Your task to perform on an android device: turn on wifi Image 0: 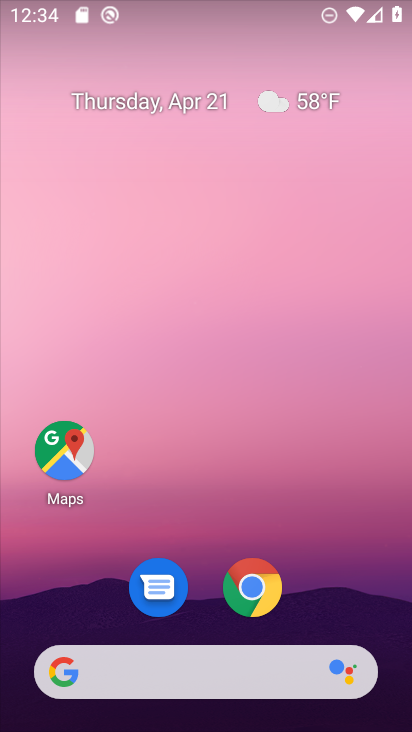
Step 0: click (161, 336)
Your task to perform on an android device: turn on wifi Image 1: 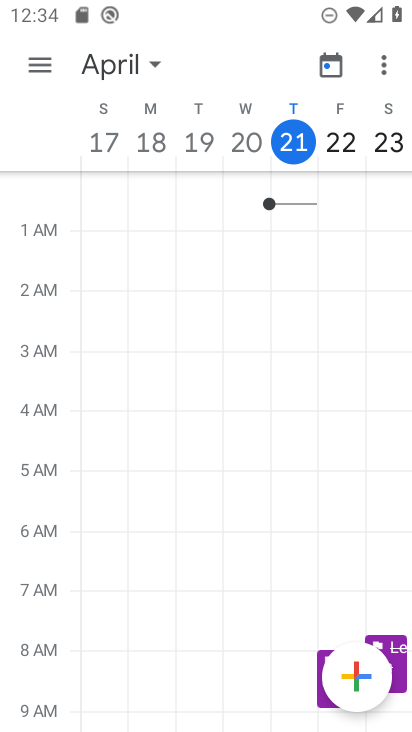
Step 1: drag from (183, 510) to (208, 60)
Your task to perform on an android device: turn on wifi Image 2: 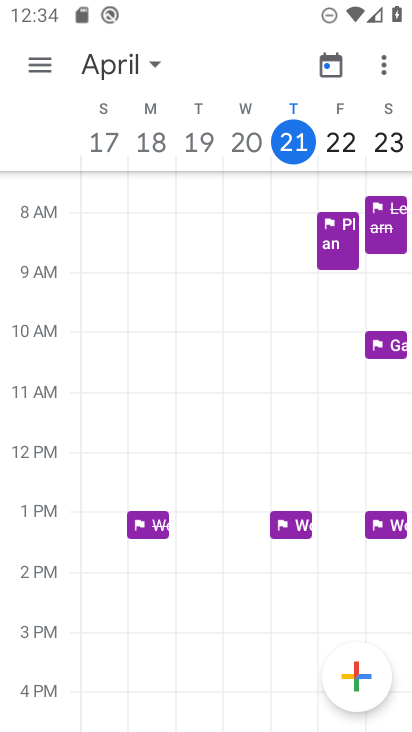
Step 2: press home button
Your task to perform on an android device: turn on wifi Image 3: 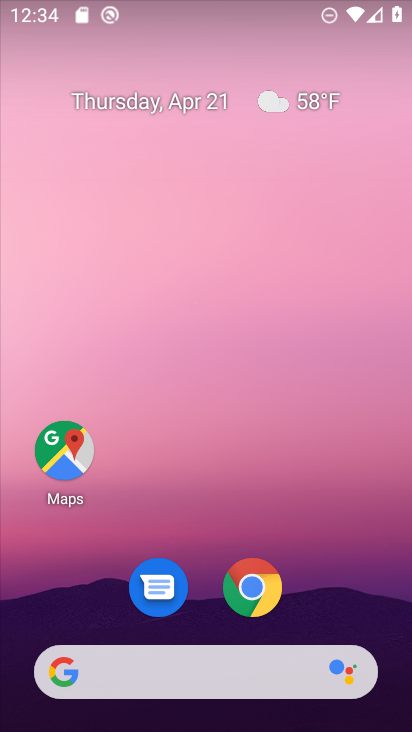
Step 3: drag from (201, 565) to (277, 56)
Your task to perform on an android device: turn on wifi Image 4: 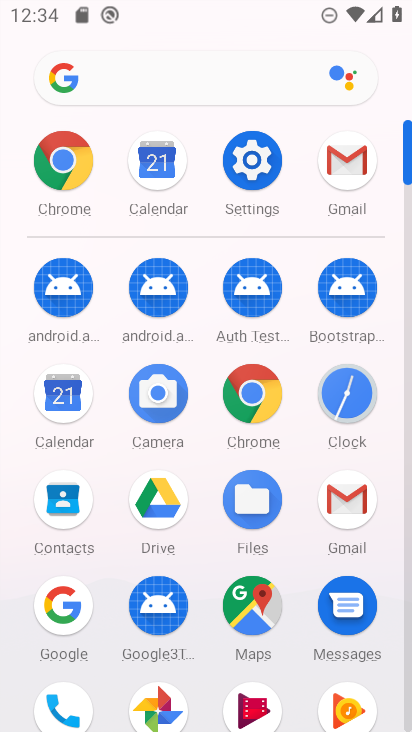
Step 4: click (250, 174)
Your task to perform on an android device: turn on wifi Image 5: 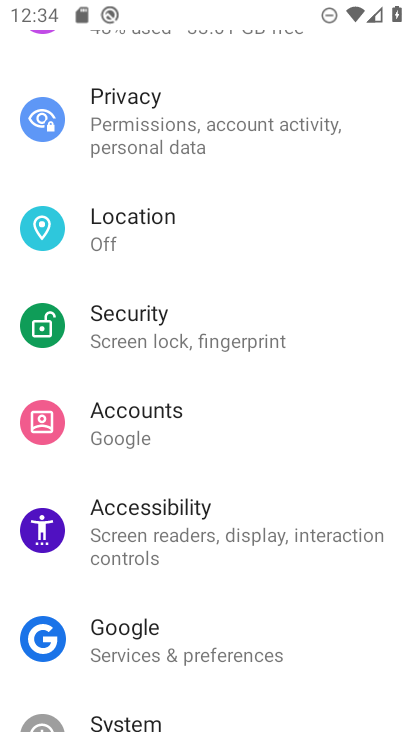
Step 5: drag from (241, 185) to (178, 731)
Your task to perform on an android device: turn on wifi Image 6: 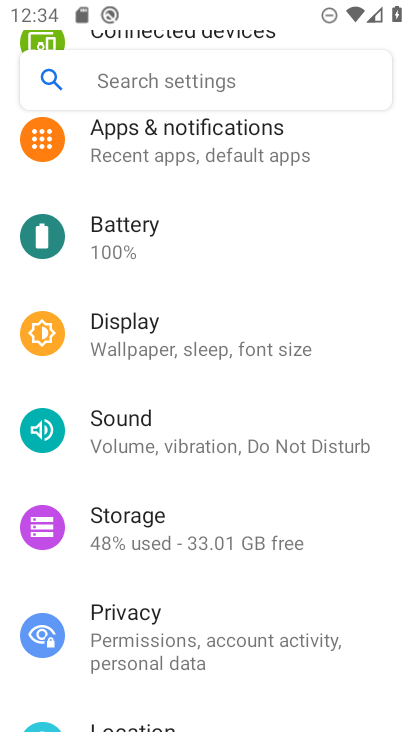
Step 6: drag from (242, 236) to (209, 617)
Your task to perform on an android device: turn on wifi Image 7: 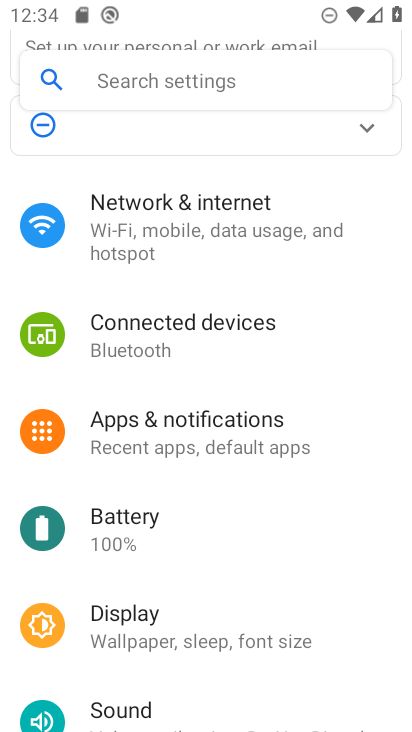
Step 7: click (192, 253)
Your task to perform on an android device: turn on wifi Image 8: 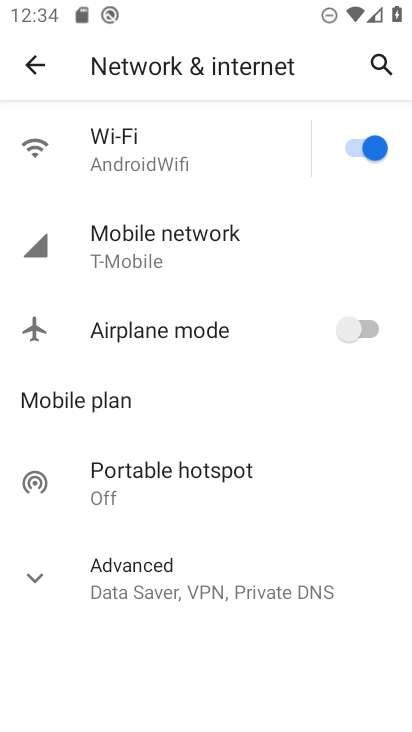
Step 8: task complete